Your task to perform on an android device: Search for razer naga on ebay, select the first entry, add it to the cart, then select checkout. Image 0: 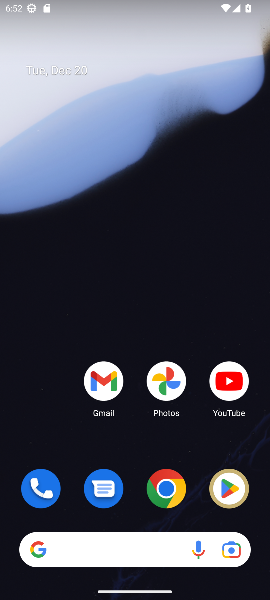
Step 0: press home button
Your task to perform on an android device: Search for razer naga on ebay, select the first entry, add it to the cart, then select checkout. Image 1: 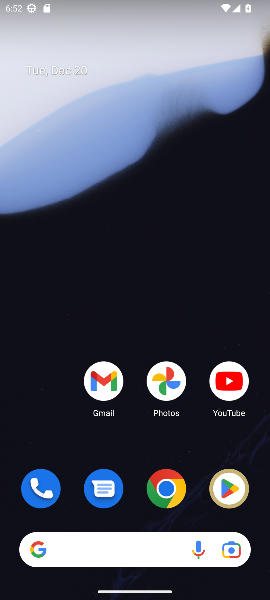
Step 1: click (57, 549)
Your task to perform on an android device: Search for razer naga on ebay, select the first entry, add it to the cart, then select checkout. Image 2: 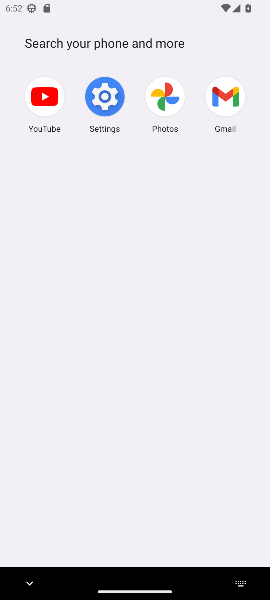
Step 2: press home button
Your task to perform on an android device: Search for razer naga on ebay, select the first entry, add it to the cart, then select checkout. Image 3: 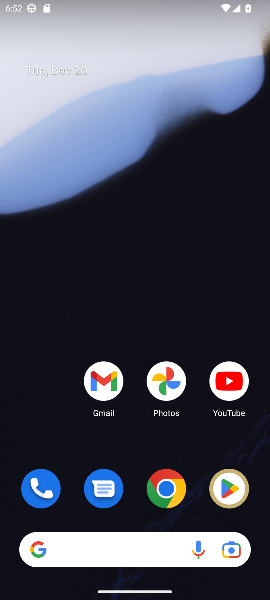
Step 3: drag from (43, 430) to (25, 108)
Your task to perform on an android device: Search for razer naga on ebay, select the first entry, add it to the cart, then select checkout. Image 4: 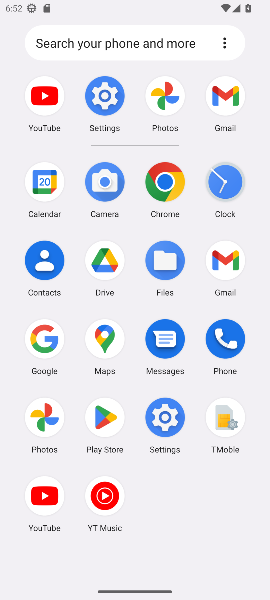
Step 4: click (44, 340)
Your task to perform on an android device: Search for razer naga on ebay, select the first entry, add it to the cart, then select checkout. Image 5: 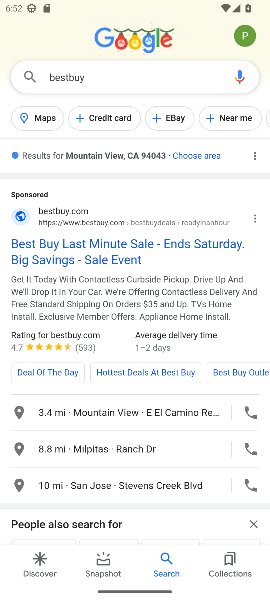
Step 5: click (166, 72)
Your task to perform on an android device: Search for razer naga on ebay, select the first entry, add it to the cart, then select checkout. Image 6: 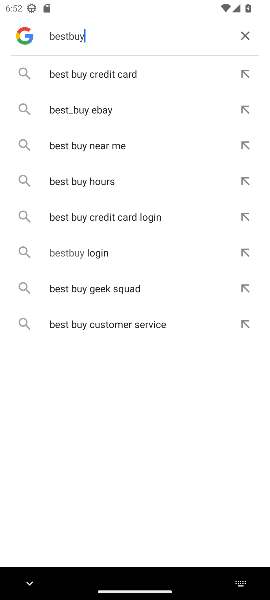
Step 6: click (241, 32)
Your task to perform on an android device: Search for razer naga on ebay, select the first entry, add it to the cart, then select checkout. Image 7: 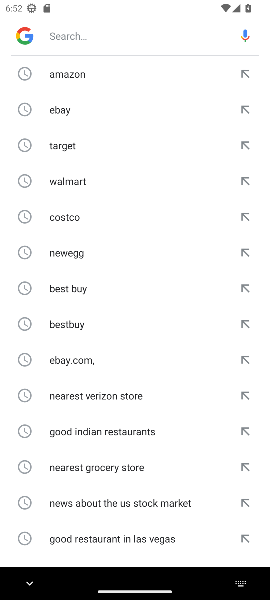
Step 7: press enter
Your task to perform on an android device: Search for razer naga on ebay, select the first entry, add it to the cart, then select checkout. Image 8: 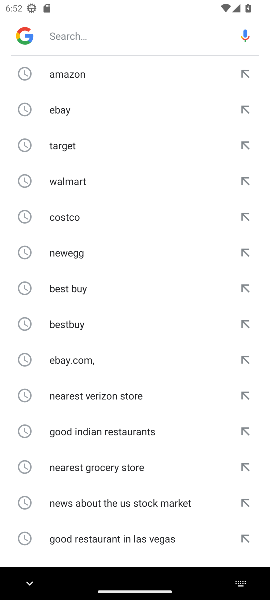
Step 8: type "ebay"
Your task to perform on an android device: Search for razer naga on ebay, select the first entry, add it to the cart, then select checkout. Image 9: 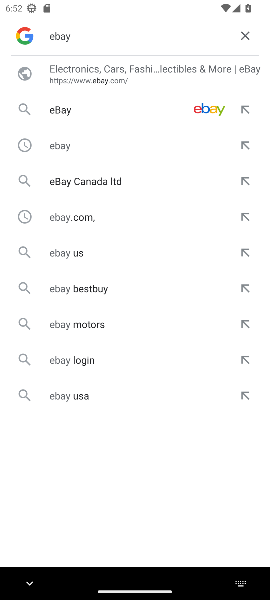
Step 9: press enter
Your task to perform on an android device: Search for razer naga on ebay, select the first entry, add it to the cart, then select checkout. Image 10: 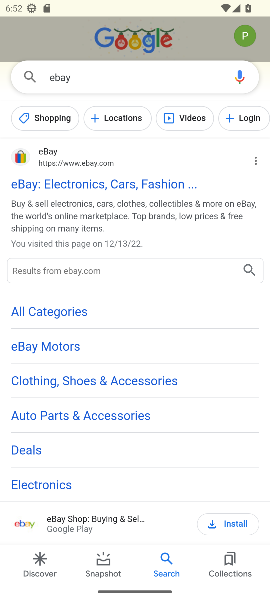
Step 10: click (110, 180)
Your task to perform on an android device: Search for razer naga on ebay, select the first entry, add it to the cart, then select checkout. Image 11: 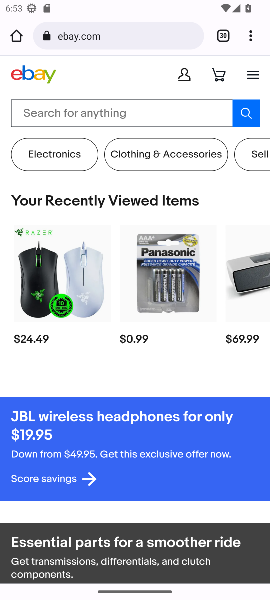
Step 11: click (75, 106)
Your task to perform on an android device: Search for razer naga on ebay, select the first entry, add it to the cart, then select checkout. Image 12: 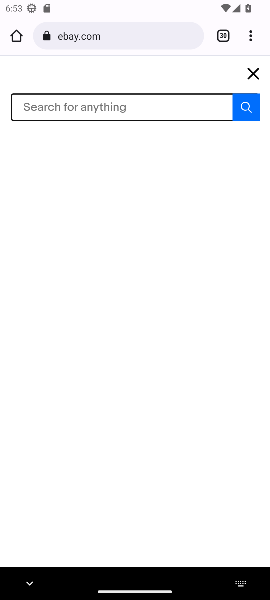
Step 12: type "razer naga"
Your task to perform on an android device: Search for razer naga on ebay, select the first entry, add it to the cart, then select checkout. Image 13: 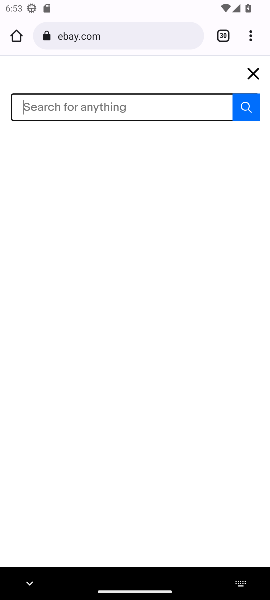
Step 13: press enter
Your task to perform on an android device: Search for razer naga on ebay, select the first entry, add it to the cart, then select checkout. Image 14: 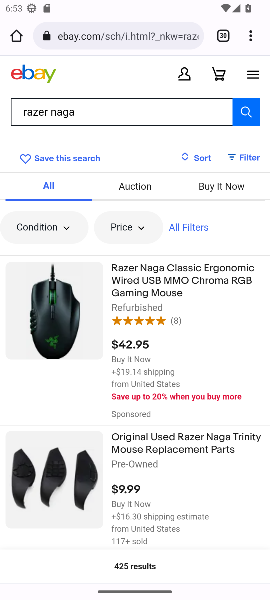
Step 14: click (145, 298)
Your task to perform on an android device: Search for razer naga on ebay, select the first entry, add it to the cart, then select checkout. Image 15: 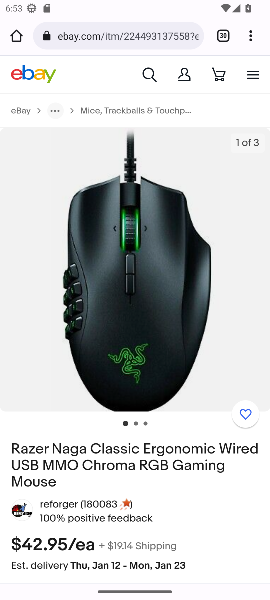
Step 15: drag from (145, 492) to (151, 187)
Your task to perform on an android device: Search for razer naga on ebay, select the first entry, add it to the cart, then select checkout. Image 16: 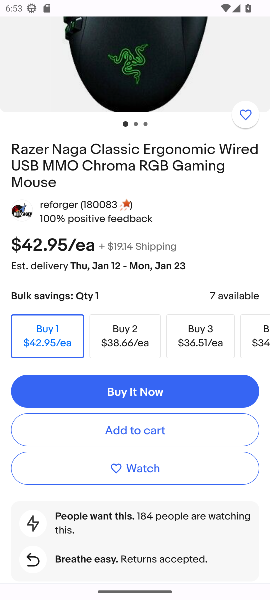
Step 16: click (140, 429)
Your task to perform on an android device: Search for razer naga on ebay, select the first entry, add it to the cart, then select checkout. Image 17: 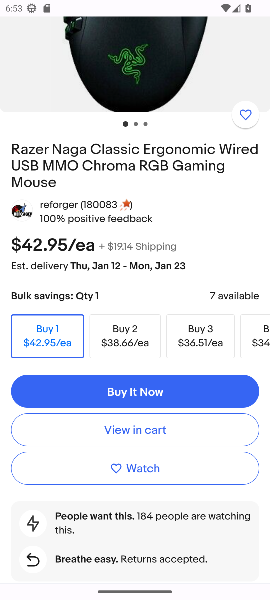
Step 17: click (122, 430)
Your task to perform on an android device: Search for razer naga on ebay, select the first entry, add it to the cart, then select checkout. Image 18: 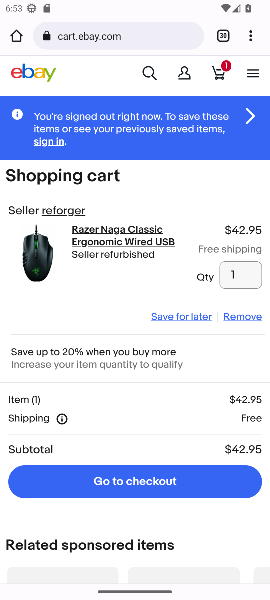
Step 18: click (107, 478)
Your task to perform on an android device: Search for razer naga on ebay, select the first entry, add it to the cart, then select checkout. Image 19: 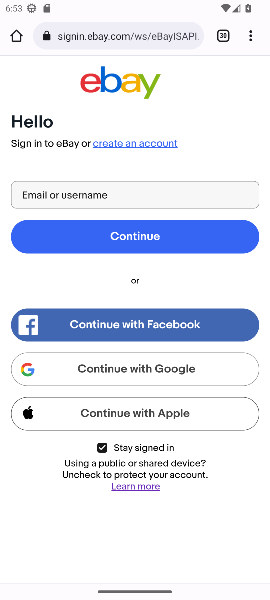
Step 19: task complete